Your task to perform on an android device: empty trash in google photos Image 0: 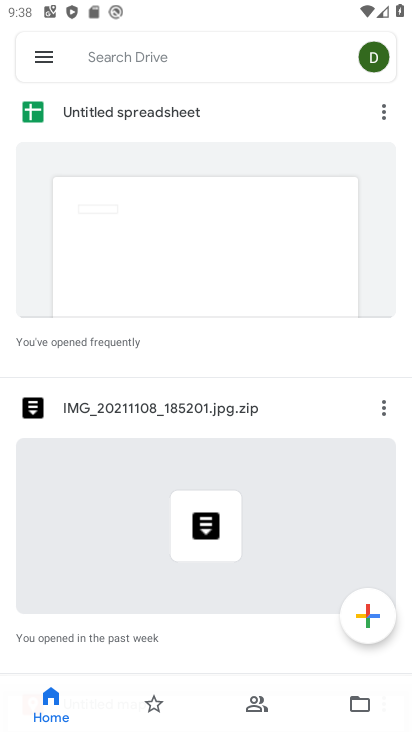
Step 0: press home button
Your task to perform on an android device: empty trash in google photos Image 1: 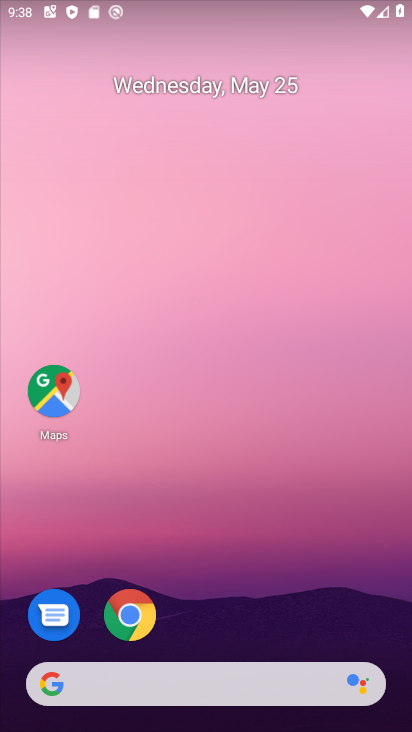
Step 1: drag from (254, 528) to (280, 50)
Your task to perform on an android device: empty trash in google photos Image 2: 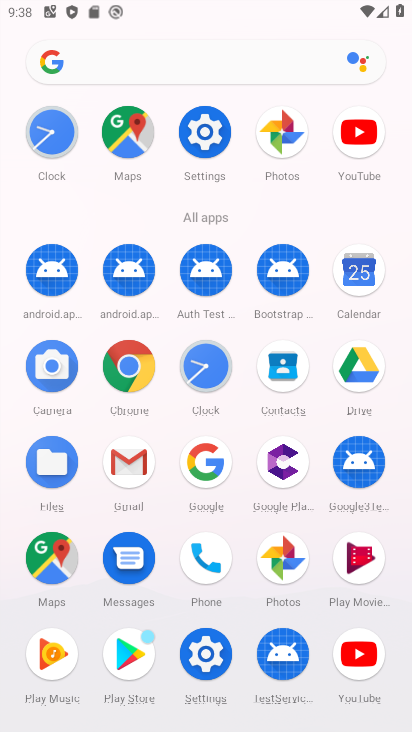
Step 2: click (287, 136)
Your task to perform on an android device: empty trash in google photos Image 3: 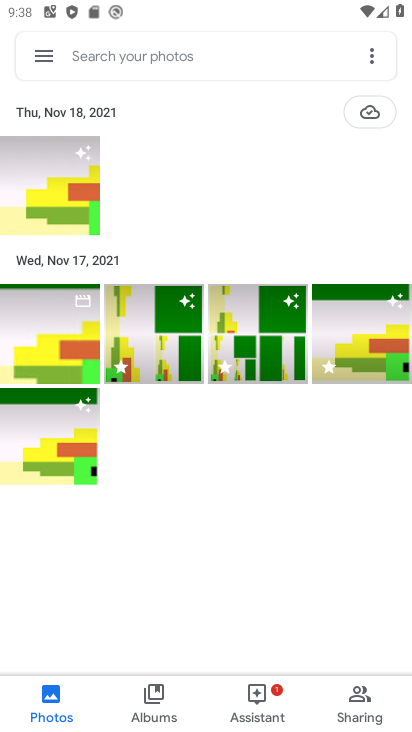
Step 3: click (46, 59)
Your task to perform on an android device: empty trash in google photos Image 4: 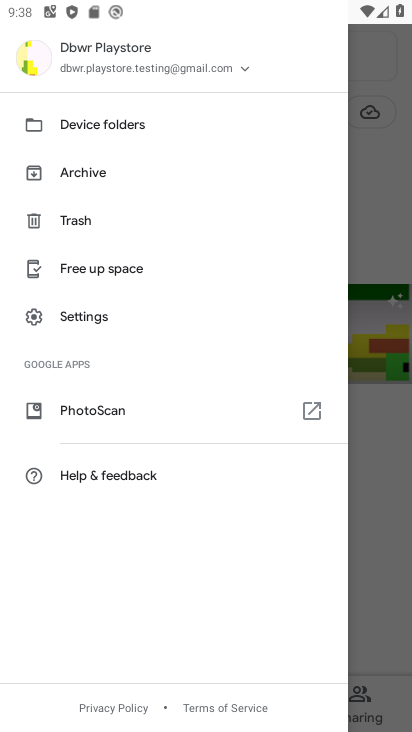
Step 4: click (63, 210)
Your task to perform on an android device: empty trash in google photos Image 5: 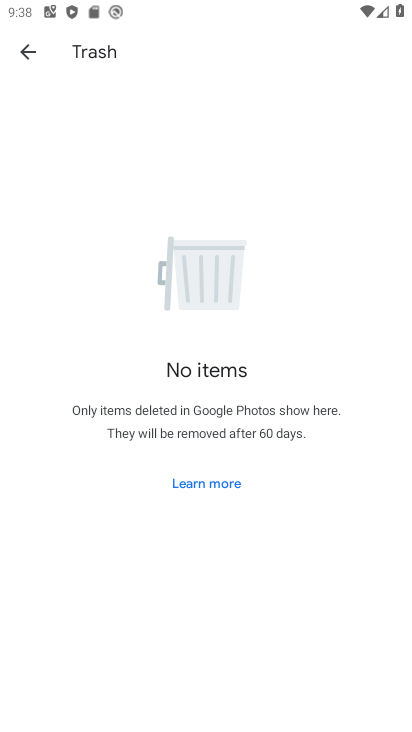
Step 5: task complete